Your task to perform on an android device: add a contact in the contacts app Image 0: 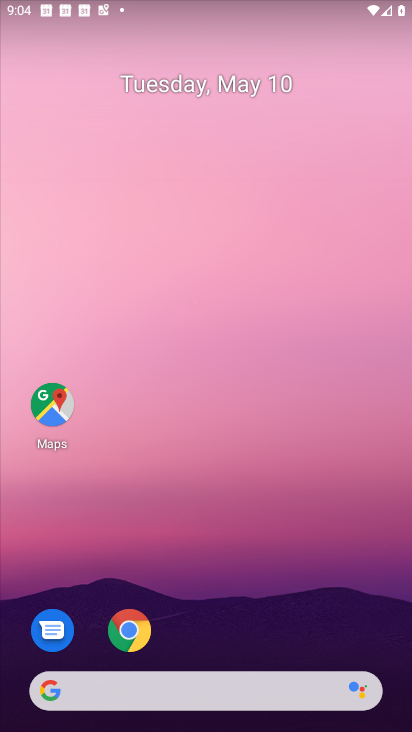
Step 0: drag from (205, 725) to (278, 0)
Your task to perform on an android device: add a contact in the contacts app Image 1: 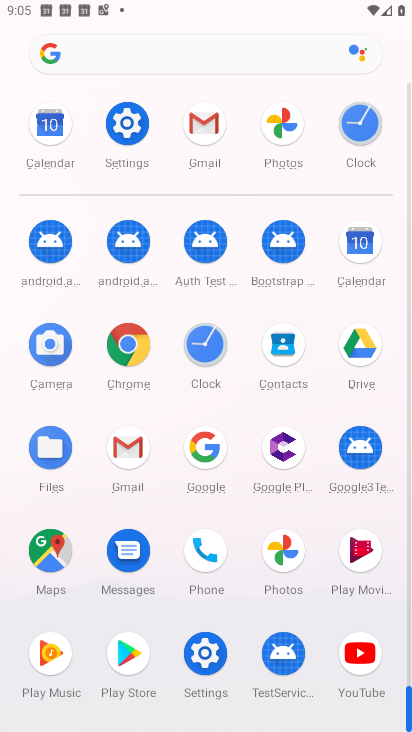
Step 1: click (290, 350)
Your task to perform on an android device: add a contact in the contacts app Image 2: 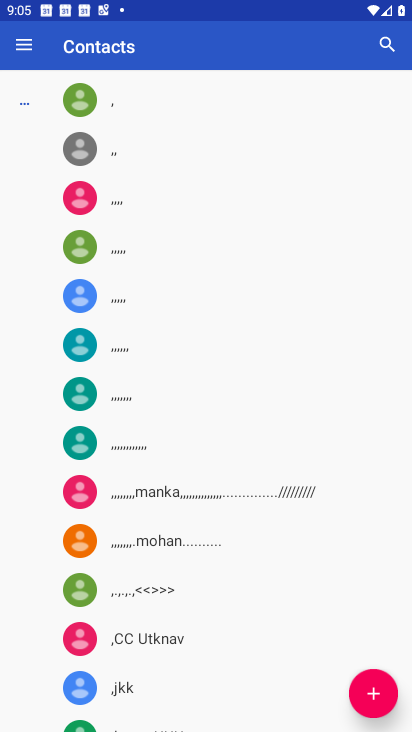
Step 2: click (373, 699)
Your task to perform on an android device: add a contact in the contacts app Image 3: 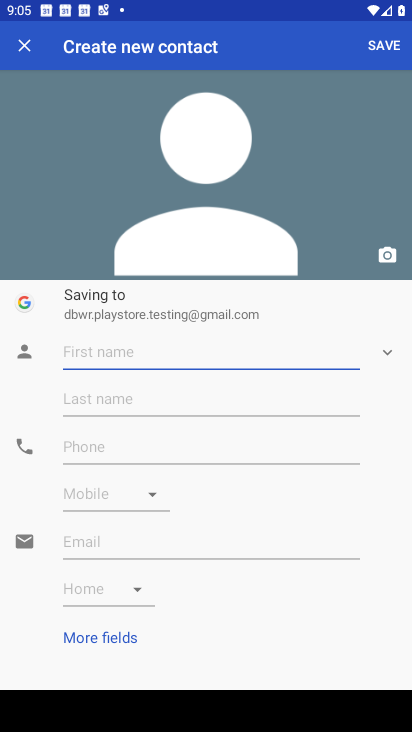
Step 3: type "hgcj"
Your task to perform on an android device: add a contact in the contacts app Image 4: 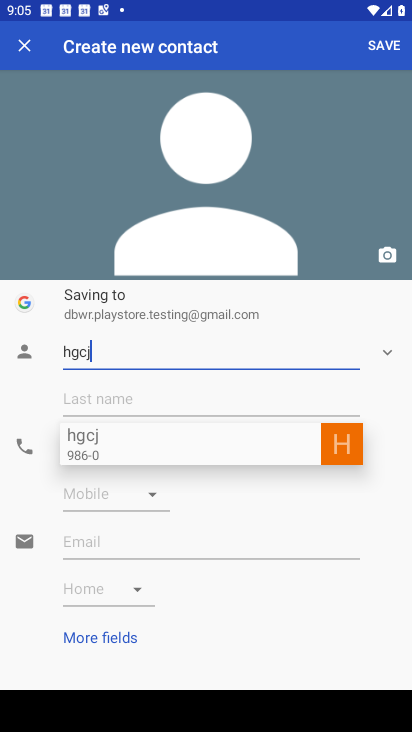
Step 4: click (202, 453)
Your task to perform on an android device: add a contact in the contacts app Image 5: 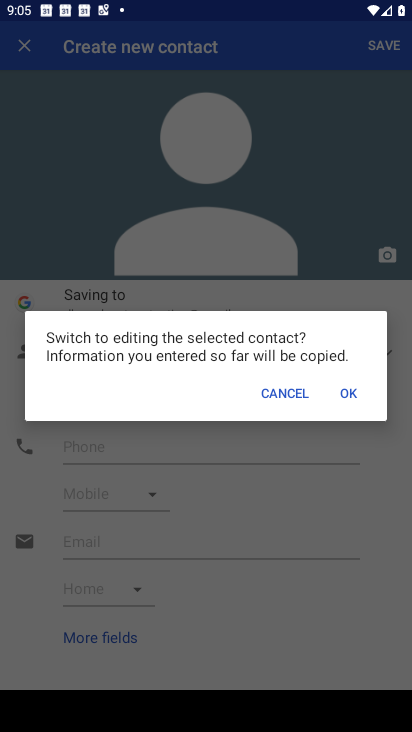
Step 5: click (293, 392)
Your task to perform on an android device: add a contact in the contacts app Image 6: 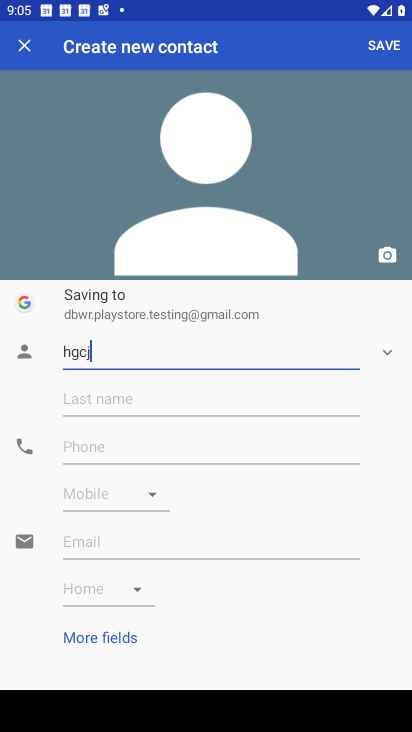
Step 6: type "jhfvk"
Your task to perform on an android device: add a contact in the contacts app Image 7: 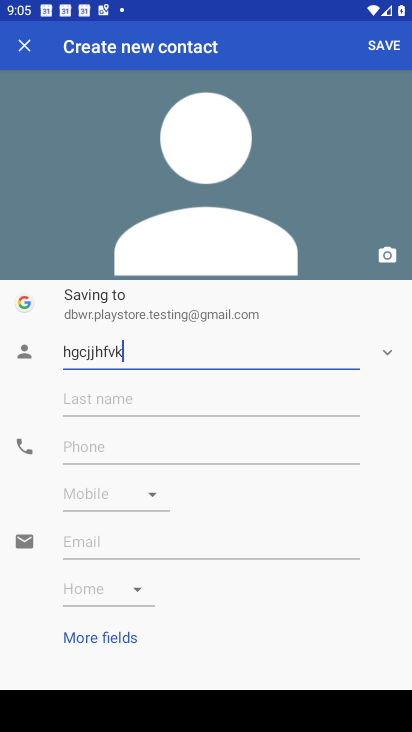
Step 7: click (114, 447)
Your task to perform on an android device: add a contact in the contacts app Image 8: 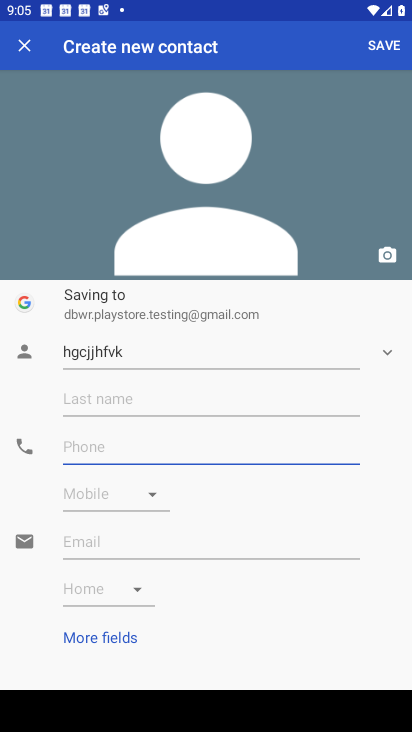
Step 8: type "7t86"
Your task to perform on an android device: add a contact in the contacts app Image 9: 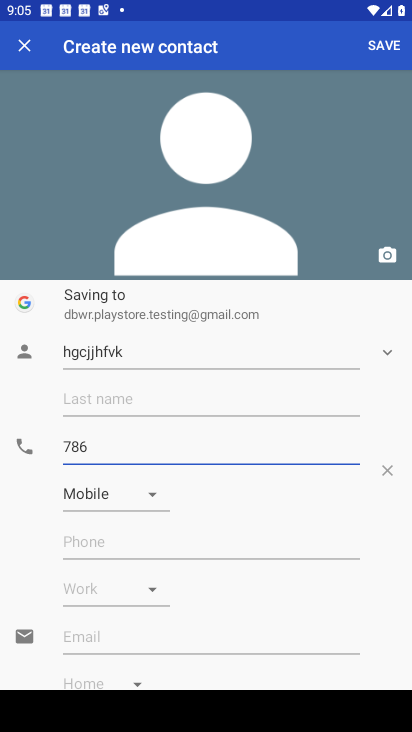
Step 9: click (367, 51)
Your task to perform on an android device: add a contact in the contacts app Image 10: 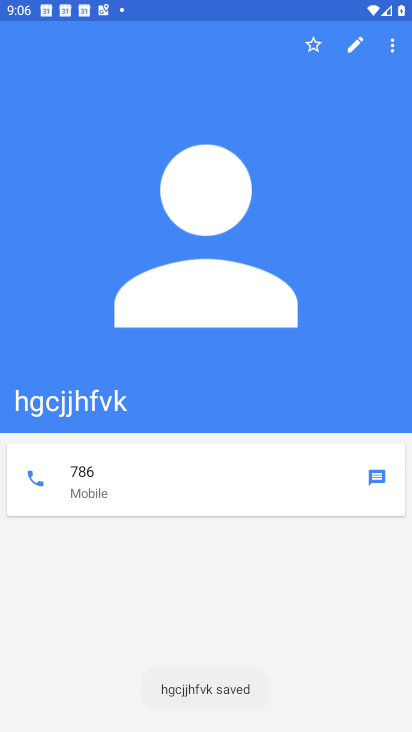
Step 10: task complete